Your task to perform on an android device: toggle javascript in the chrome app Image 0: 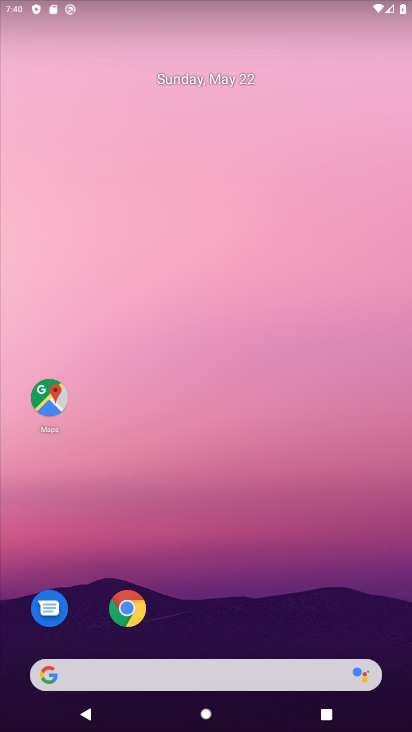
Step 0: click (125, 608)
Your task to perform on an android device: toggle javascript in the chrome app Image 1: 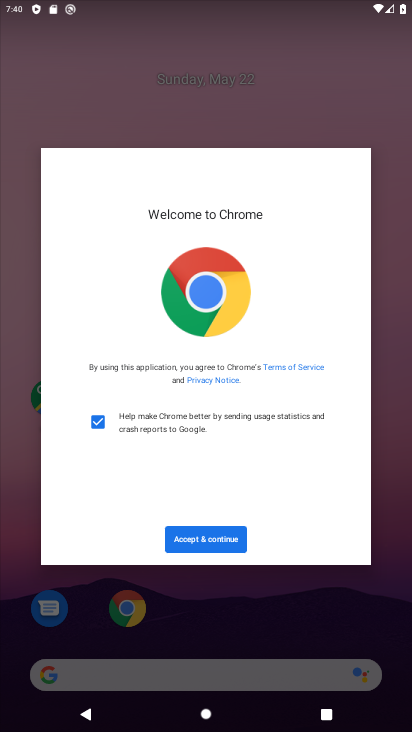
Step 1: click (196, 544)
Your task to perform on an android device: toggle javascript in the chrome app Image 2: 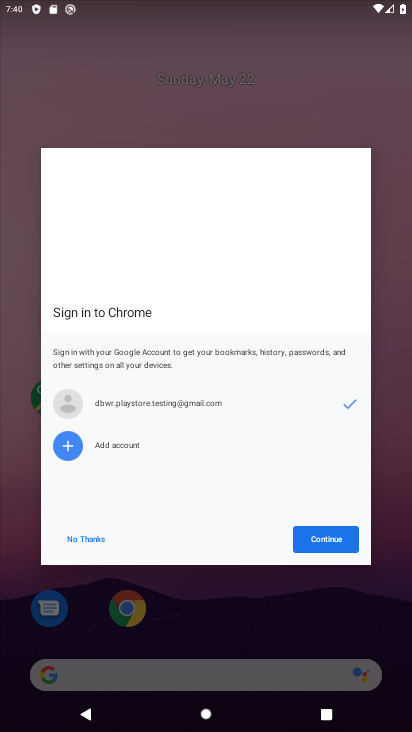
Step 2: click (331, 538)
Your task to perform on an android device: toggle javascript in the chrome app Image 3: 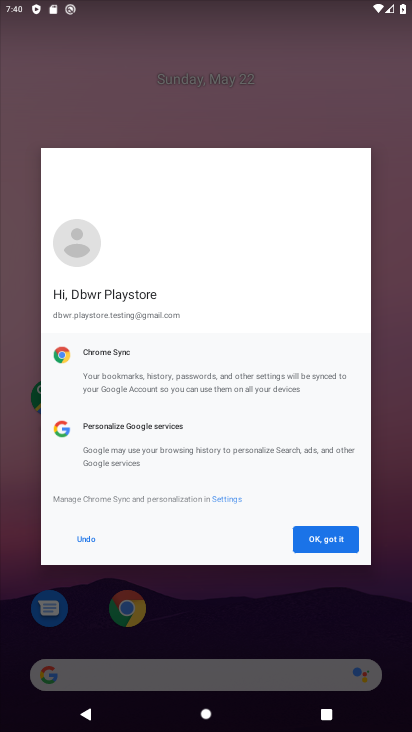
Step 3: click (331, 538)
Your task to perform on an android device: toggle javascript in the chrome app Image 4: 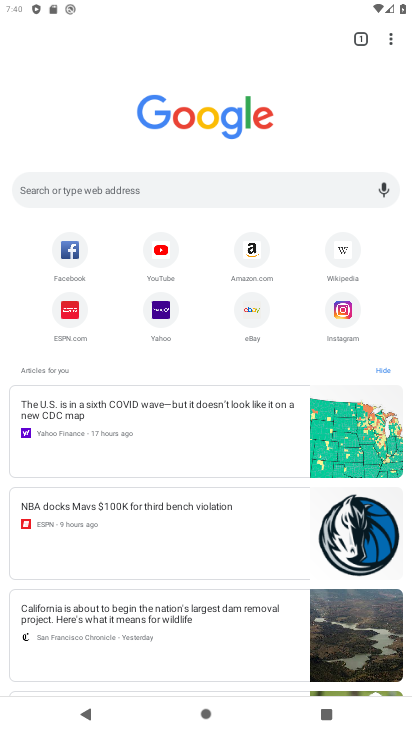
Step 4: click (391, 42)
Your task to perform on an android device: toggle javascript in the chrome app Image 5: 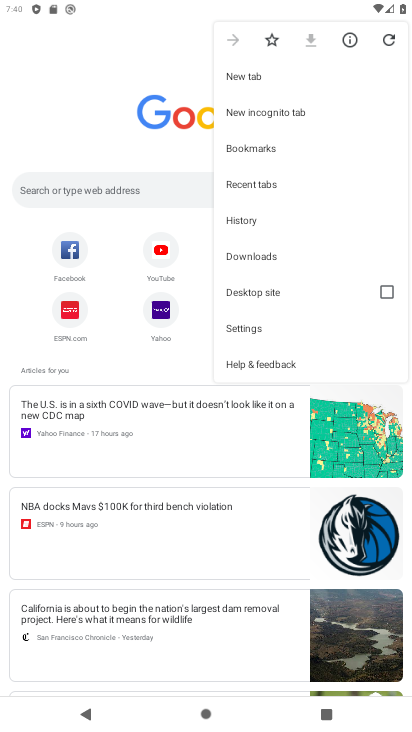
Step 5: click (252, 325)
Your task to perform on an android device: toggle javascript in the chrome app Image 6: 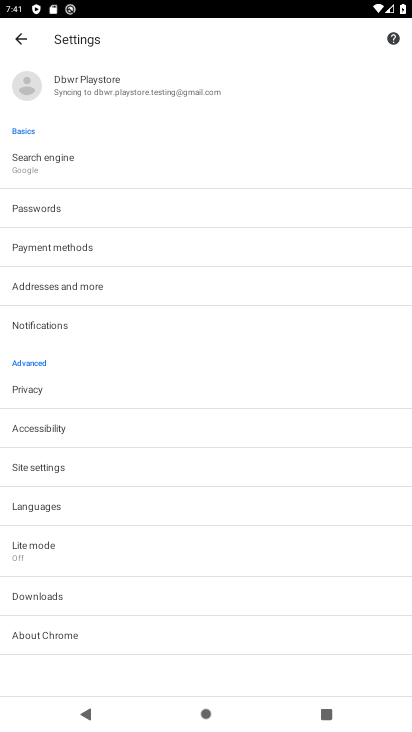
Step 6: click (49, 465)
Your task to perform on an android device: toggle javascript in the chrome app Image 7: 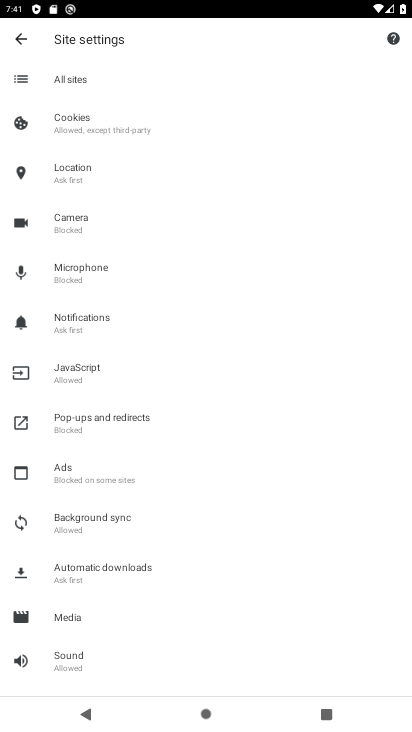
Step 7: click (80, 367)
Your task to perform on an android device: toggle javascript in the chrome app Image 8: 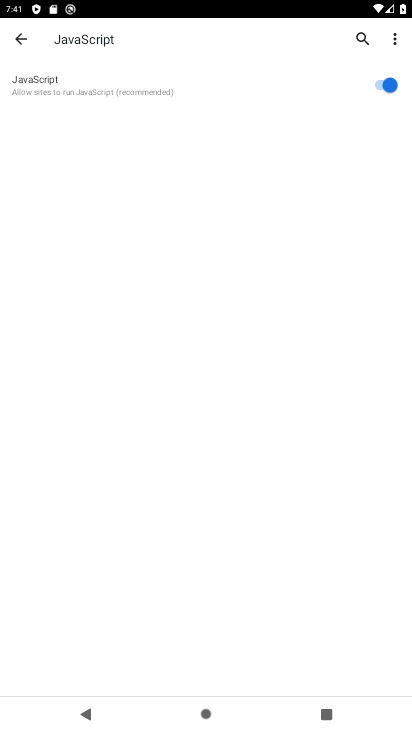
Step 8: click (378, 82)
Your task to perform on an android device: toggle javascript in the chrome app Image 9: 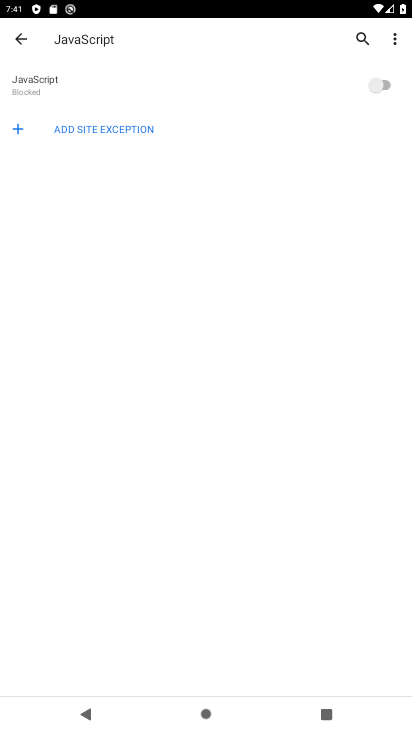
Step 9: task complete